Your task to perform on an android device: Open ESPN.com Image 0: 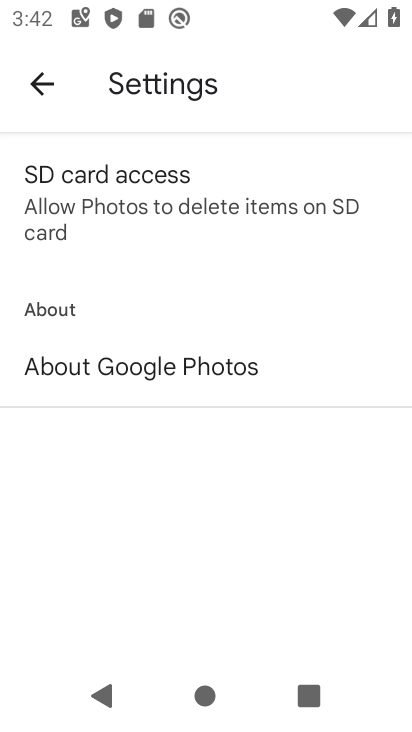
Step 0: press home button
Your task to perform on an android device: Open ESPN.com Image 1: 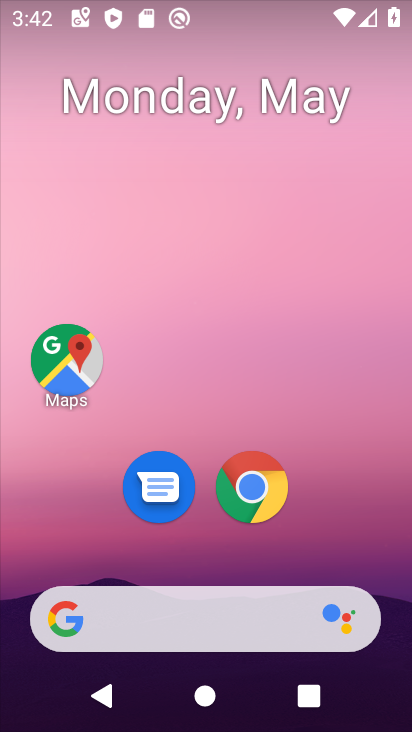
Step 1: drag from (190, 574) to (252, 261)
Your task to perform on an android device: Open ESPN.com Image 2: 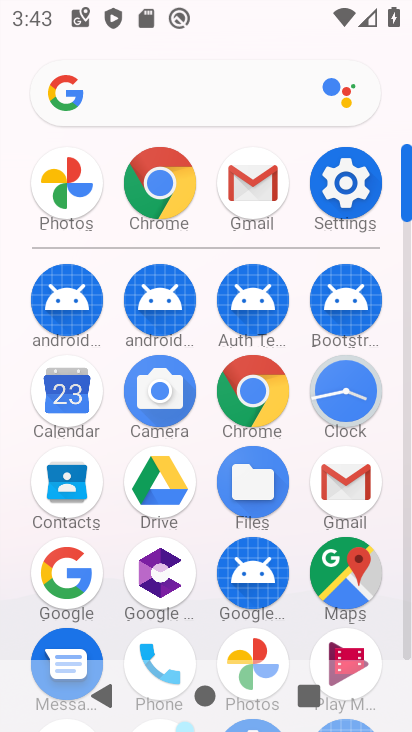
Step 2: click (145, 193)
Your task to perform on an android device: Open ESPN.com Image 3: 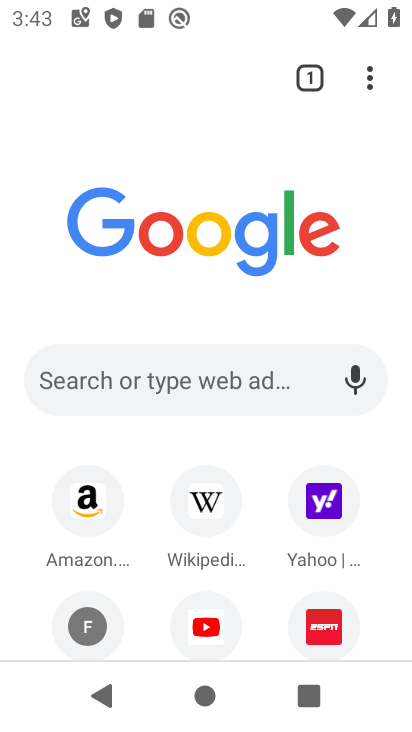
Step 3: drag from (125, 636) to (178, 308)
Your task to perform on an android device: Open ESPN.com Image 4: 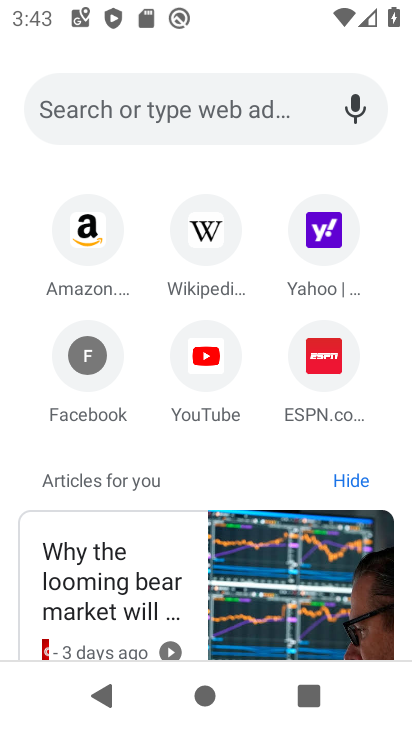
Step 4: click (334, 364)
Your task to perform on an android device: Open ESPN.com Image 5: 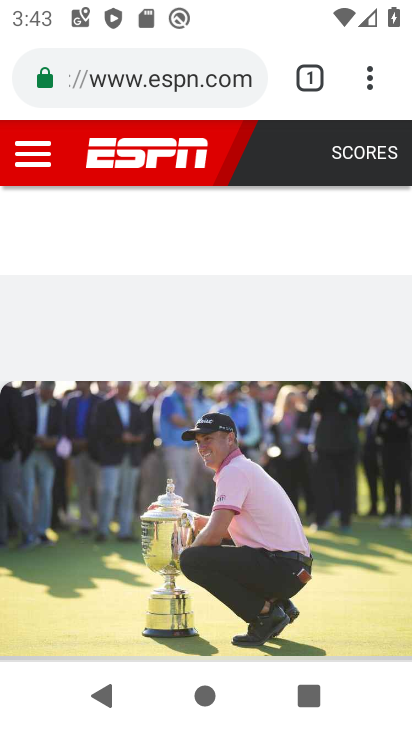
Step 5: task complete